Your task to perform on an android device: refresh tabs in the chrome app Image 0: 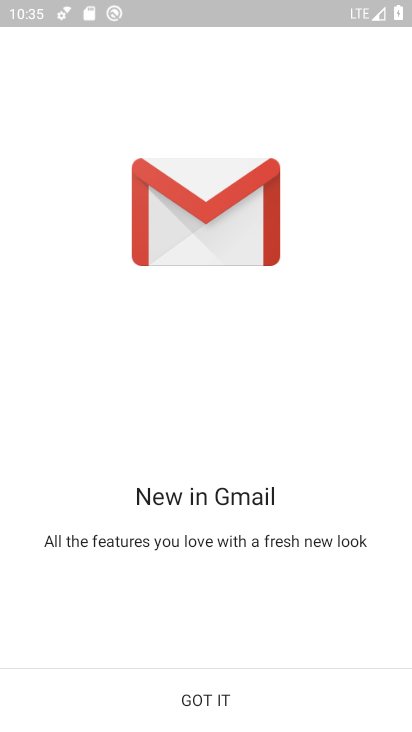
Step 0: press home button
Your task to perform on an android device: refresh tabs in the chrome app Image 1: 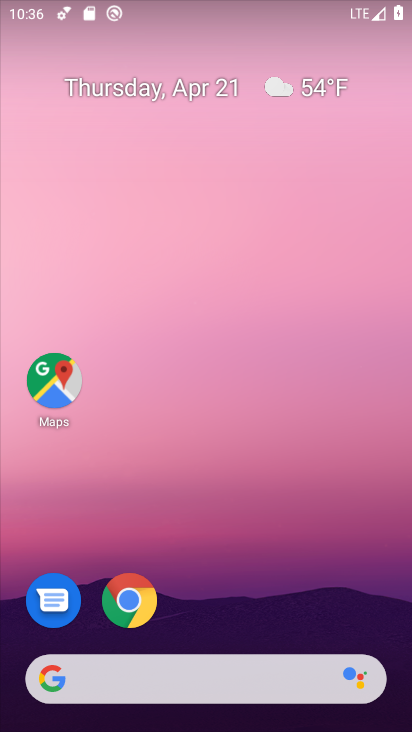
Step 1: click (143, 606)
Your task to perform on an android device: refresh tabs in the chrome app Image 2: 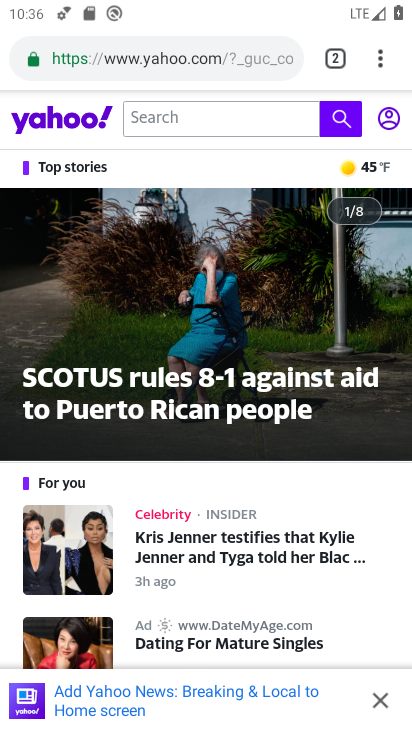
Step 2: click (380, 58)
Your task to perform on an android device: refresh tabs in the chrome app Image 3: 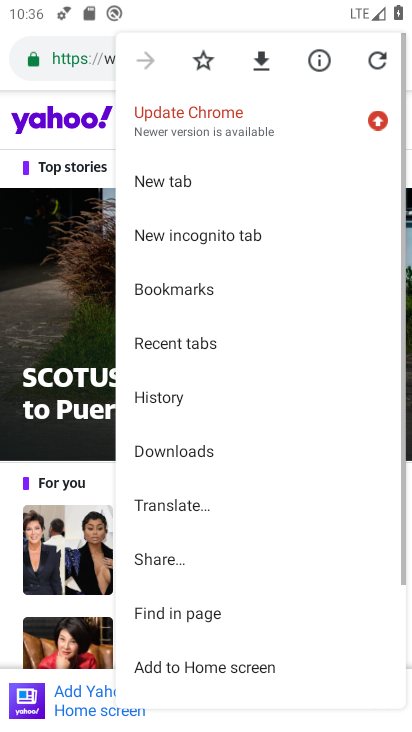
Step 3: click (380, 58)
Your task to perform on an android device: refresh tabs in the chrome app Image 4: 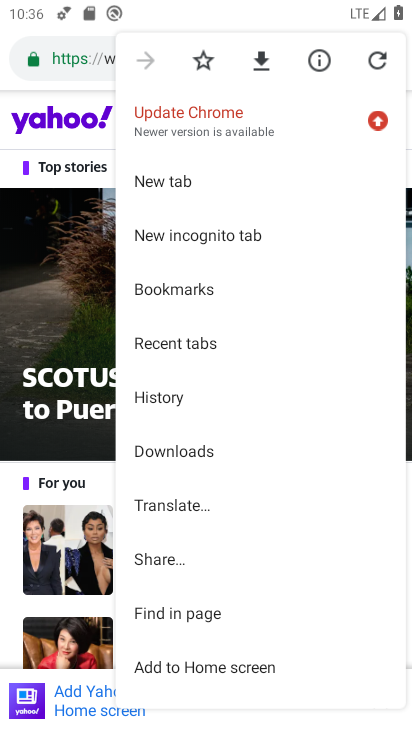
Step 4: click (381, 59)
Your task to perform on an android device: refresh tabs in the chrome app Image 5: 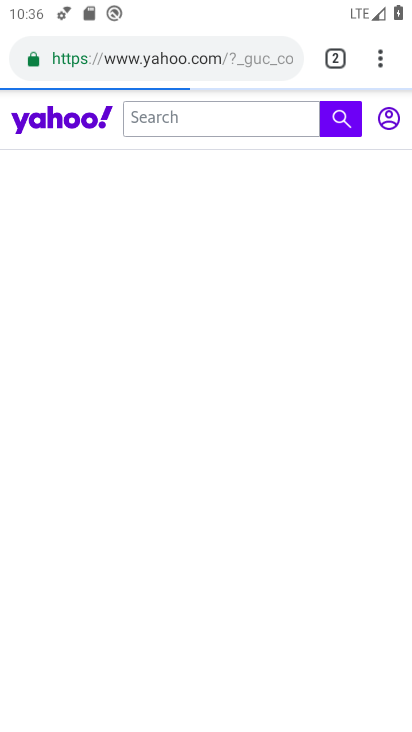
Step 5: task complete